Your task to perform on an android device: check data usage Image 0: 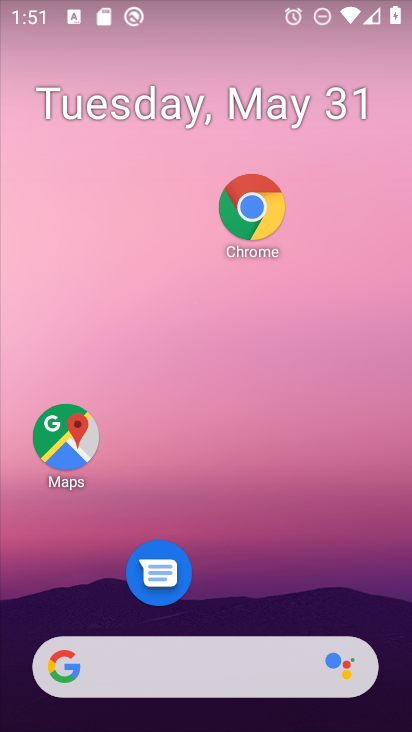
Step 0: drag from (260, 547) to (304, 67)
Your task to perform on an android device: check data usage Image 1: 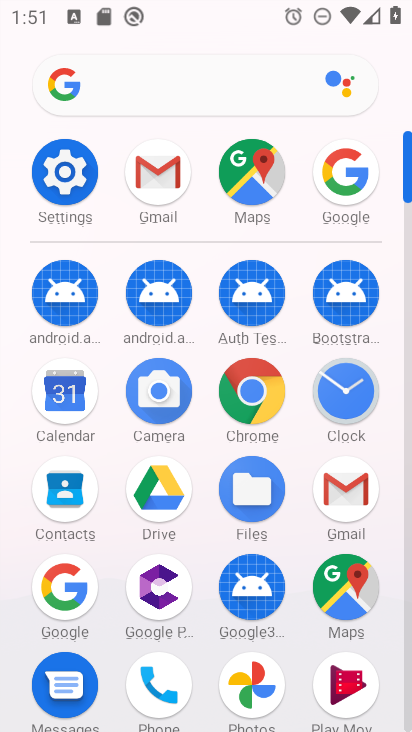
Step 1: click (83, 176)
Your task to perform on an android device: check data usage Image 2: 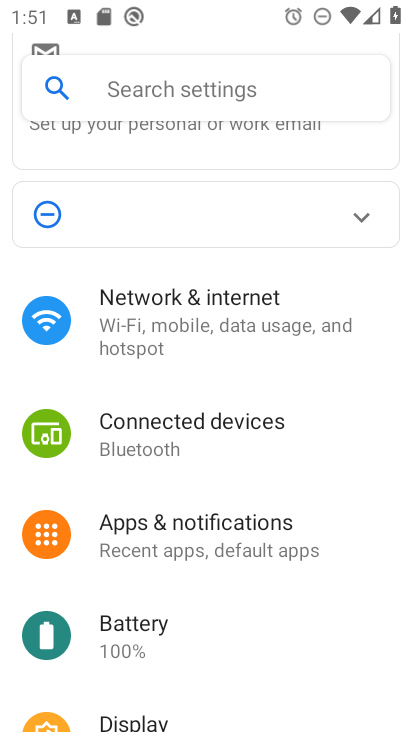
Step 2: click (226, 326)
Your task to perform on an android device: check data usage Image 3: 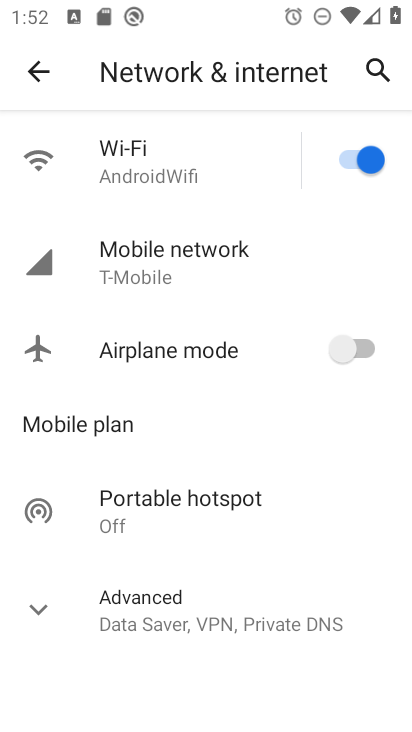
Step 3: click (210, 269)
Your task to perform on an android device: check data usage Image 4: 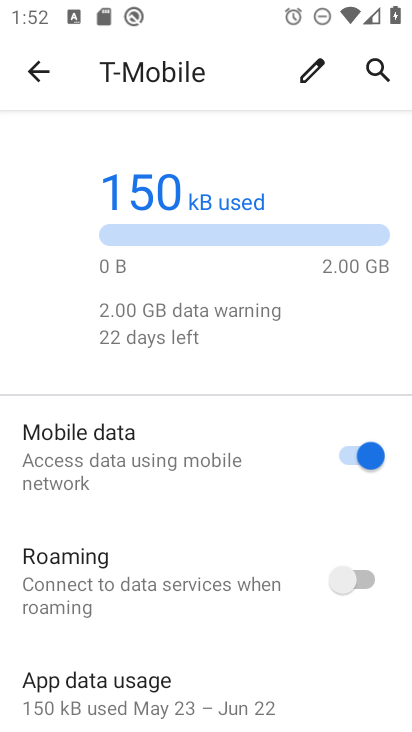
Step 4: drag from (190, 585) to (190, 208)
Your task to perform on an android device: check data usage Image 5: 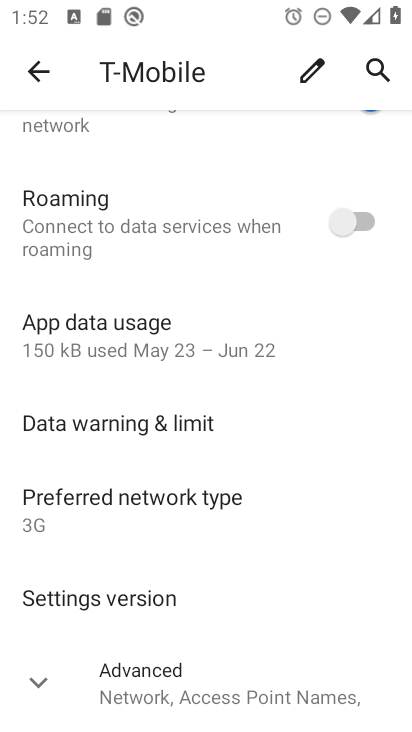
Step 5: click (229, 347)
Your task to perform on an android device: check data usage Image 6: 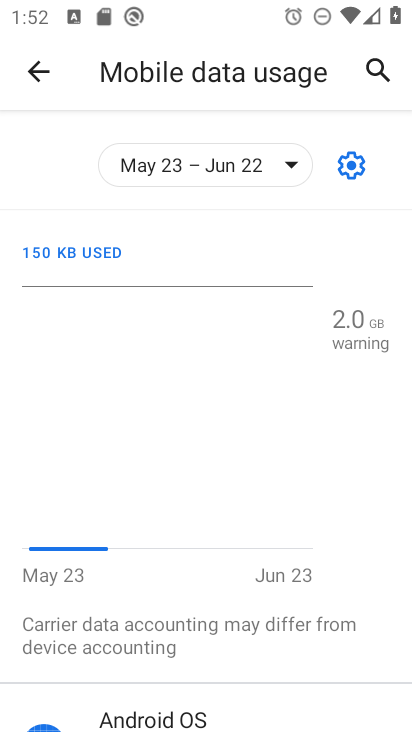
Step 6: task complete